Your task to perform on an android device: Search for "duracell triple a" on amazon.com, select the first entry, add it to the cart, then select checkout. Image 0: 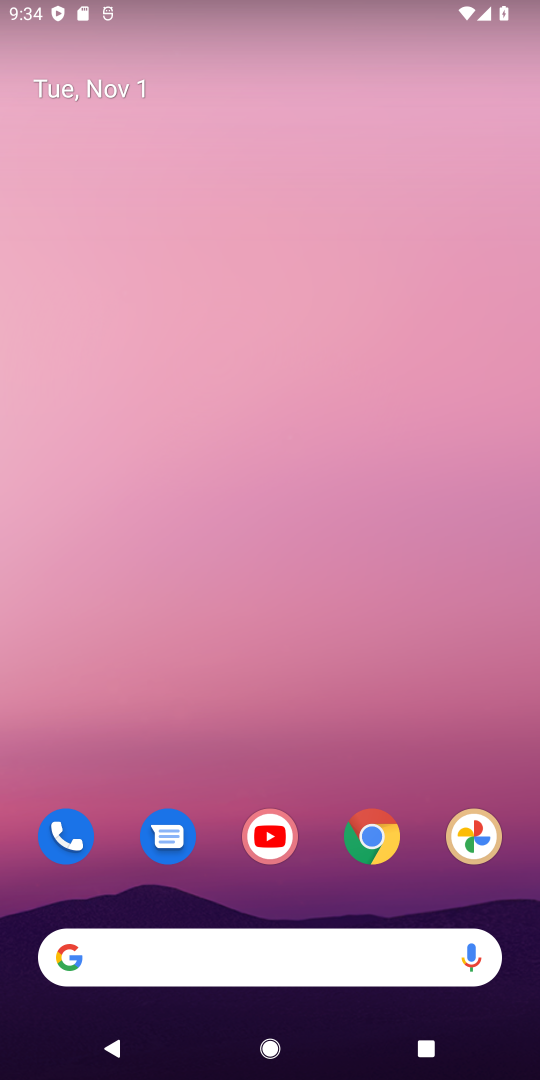
Step 0: click (362, 840)
Your task to perform on an android device: Search for "duracell triple a" on amazon.com, select the first entry, add it to the cart, then select checkout. Image 1: 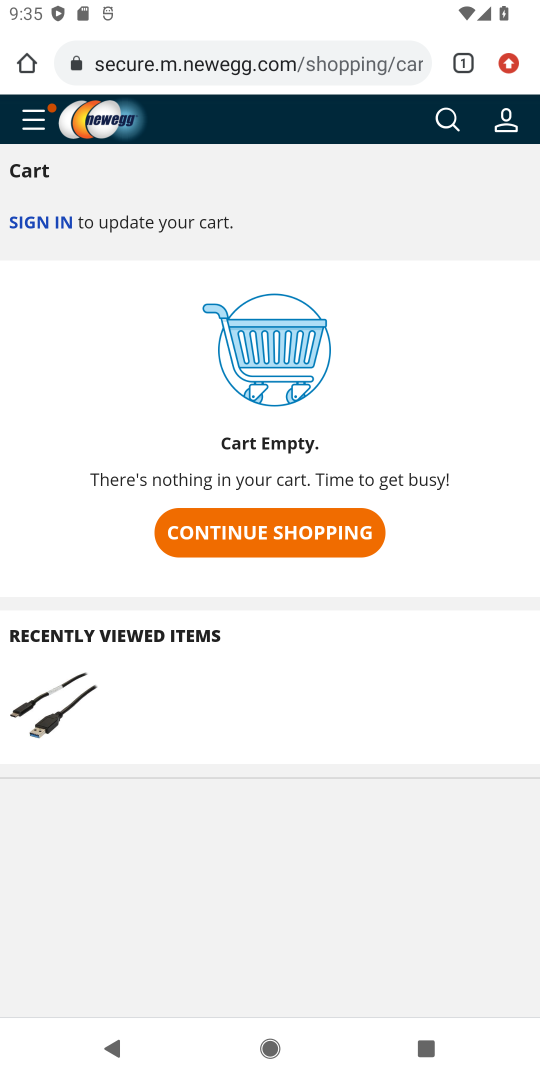
Step 1: click (239, 62)
Your task to perform on an android device: Search for "duracell triple a" on amazon.com, select the first entry, add it to the cart, then select checkout. Image 2: 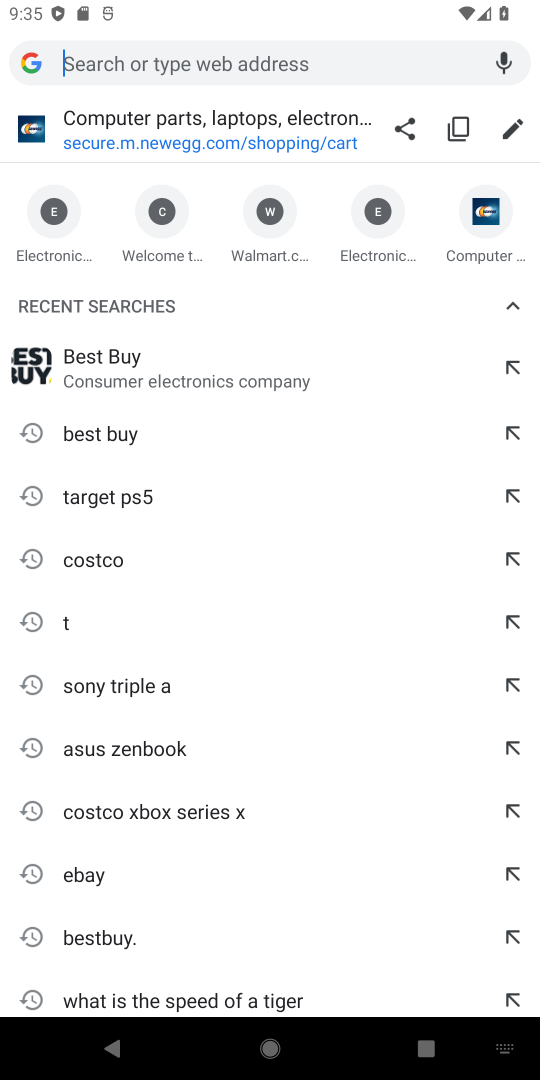
Step 2: type "amazon.com"
Your task to perform on an android device: Search for "duracell triple a" on amazon.com, select the first entry, add it to the cart, then select checkout. Image 3: 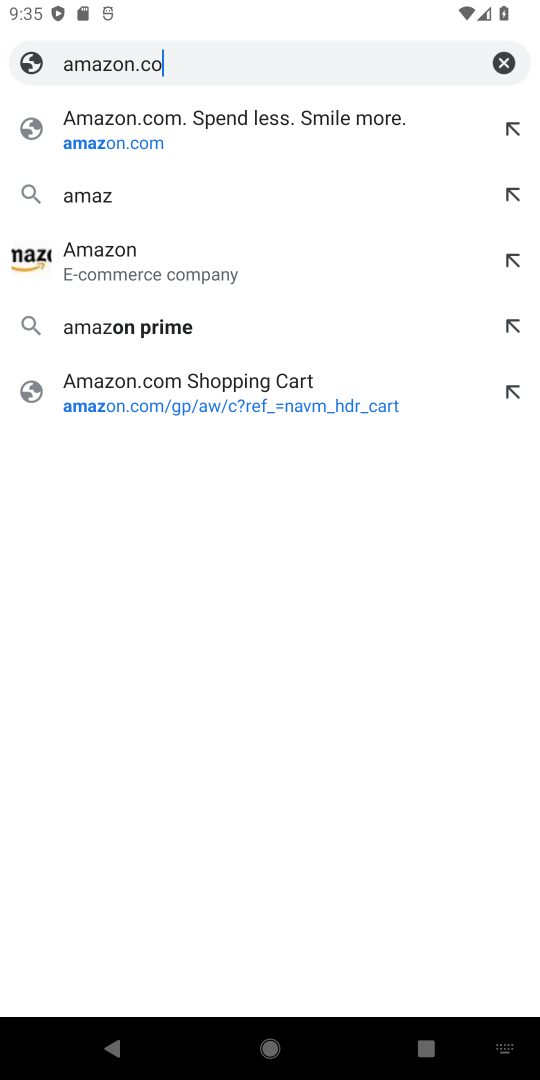
Step 3: type ""
Your task to perform on an android device: Search for "duracell triple a" on amazon.com, select the first entry, add it to the cart, then select checkout. Image 4: 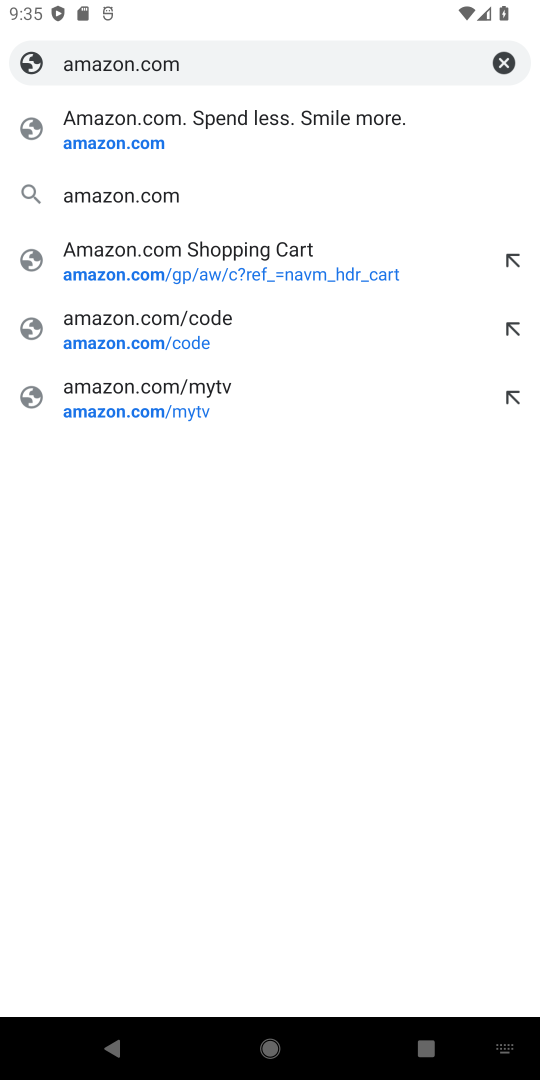
Step 4: click (289, 134)
Your task to perform on an android device: Search for "duracell triple a" on amazon.com, select the first entry, add it to the cart, then select checkout. Image 5: 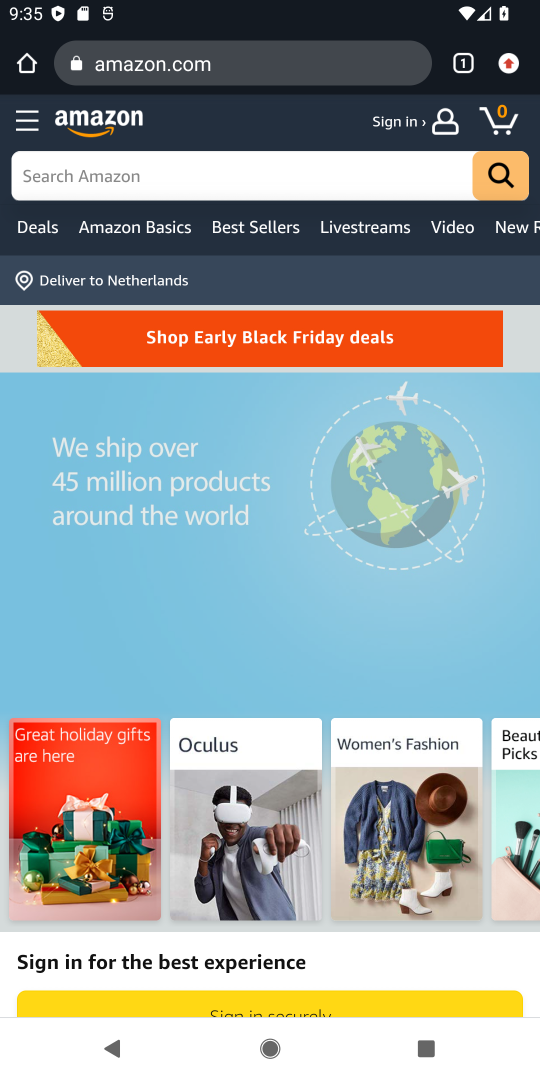
Step 5: click (202, 183)
Your task to perform on an android device: Search for "duracell triple a" on amazon.com, select the first entry, add it to the cart, then select checkout. Image 6: 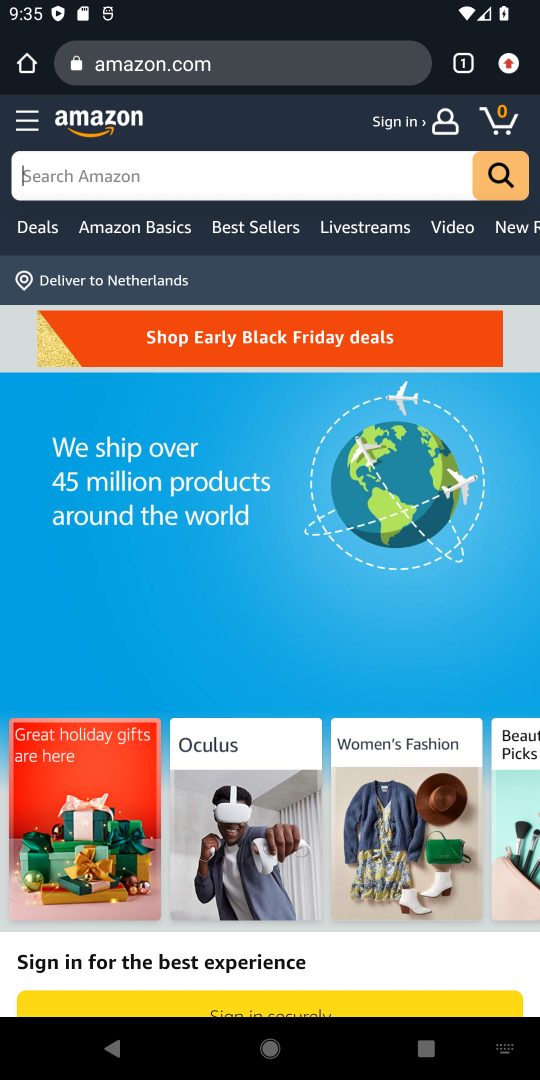
Step 6: type "duracell triple a"
Your task to perform on an android device: Search for "duracell triple a" on amazon.com, select the first entry, add it to the cart, then select checkout. Image 7: 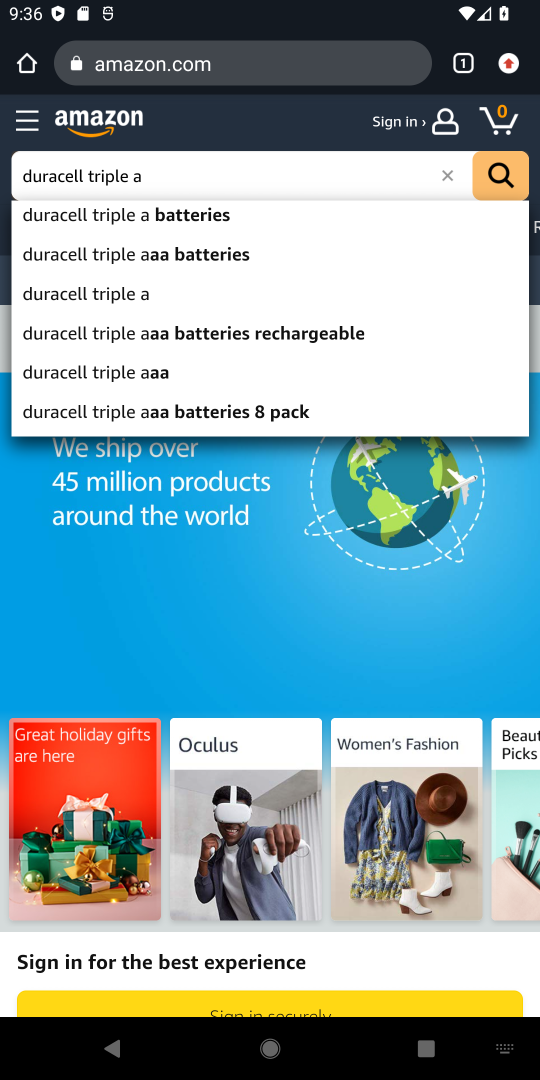
Step 7: click (77, 208)
Your task to perform on an android device: Search for "duracell triple a" on amazon.com, select the first entry, add it to the cart, then select checkout. Image 8: 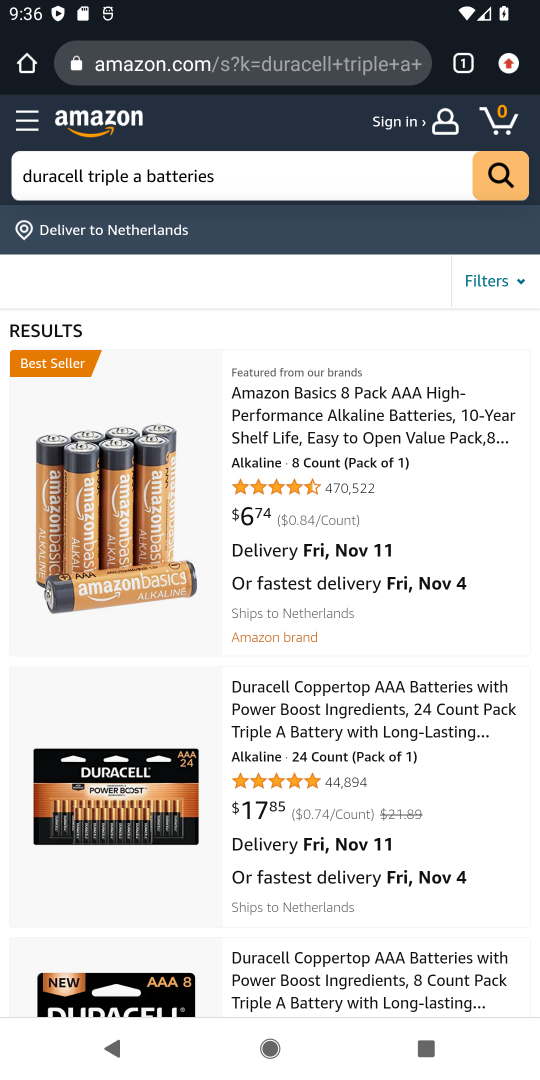
Step 8: click (284, 721)
Your task to perform on an android device: Search for "duracell triple a" on amazon.com, select the first entry, add it to the cart, then select checkout. Image 9: 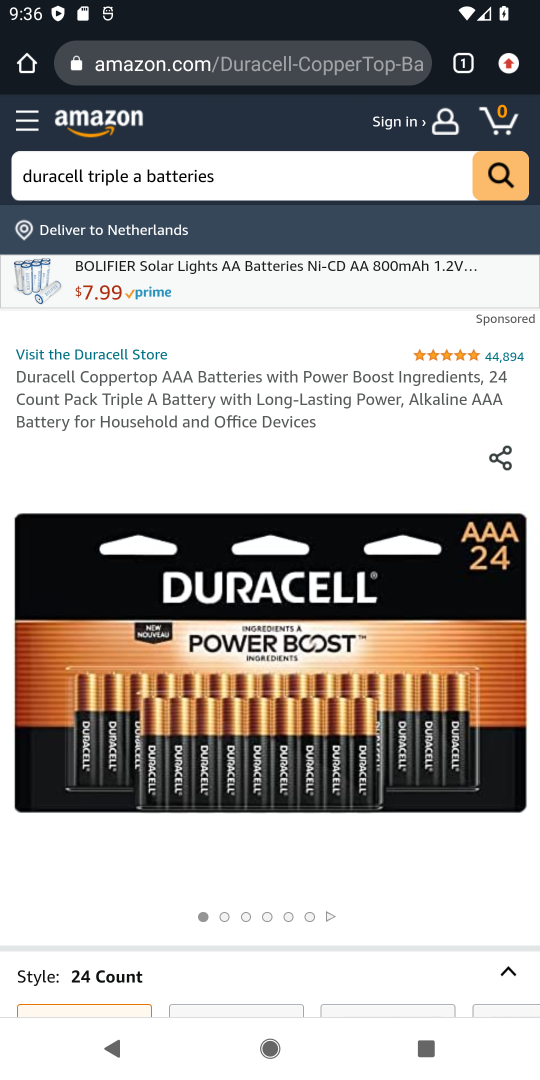
Step 9: drag from (278, 817) to (339, 319)
Your task to perform on an android device: Search for "duracell triple a" on amazon.com, select the first entry, add it to the cart, then select checkout. Image 10: 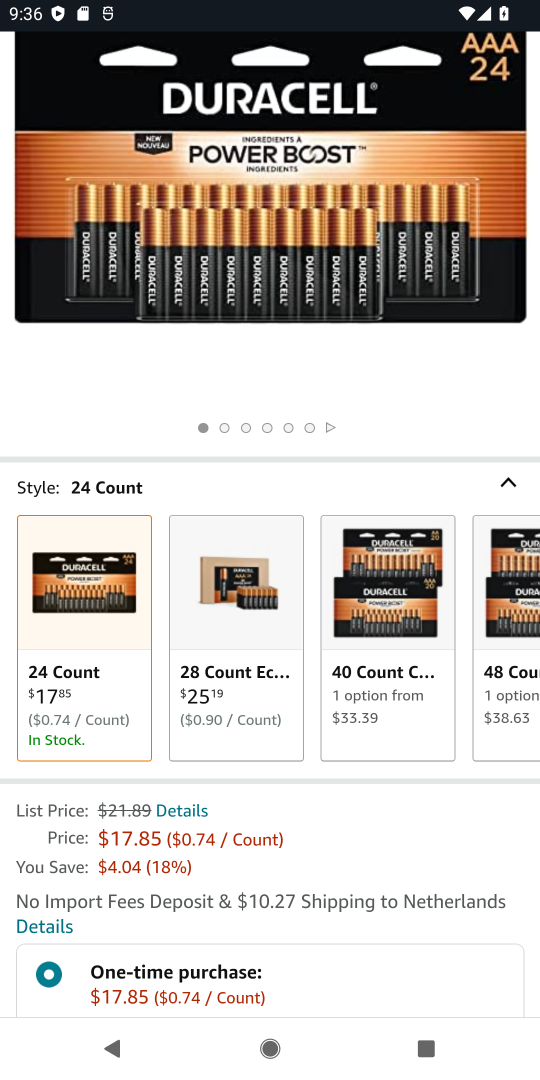
Step 10: drag from (315, 606) to (322, 300)
Your task to perform on an android device: Search for "duracell triple a" on amazon.com, select the first entry, add it to the cart, then select checkout. Image 11: 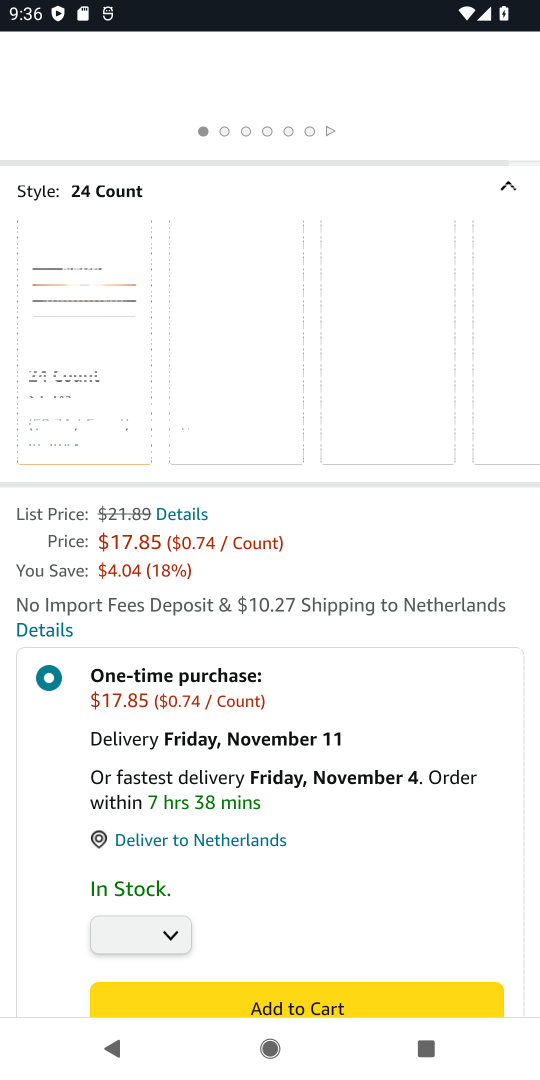
Step 11: drag from (239, 789) to (291, 539)
Your task to perform on an android device: Search for "duracell triple a" on amazon.com, select the first entry, add it to the cart, then select checkout. Image 12: 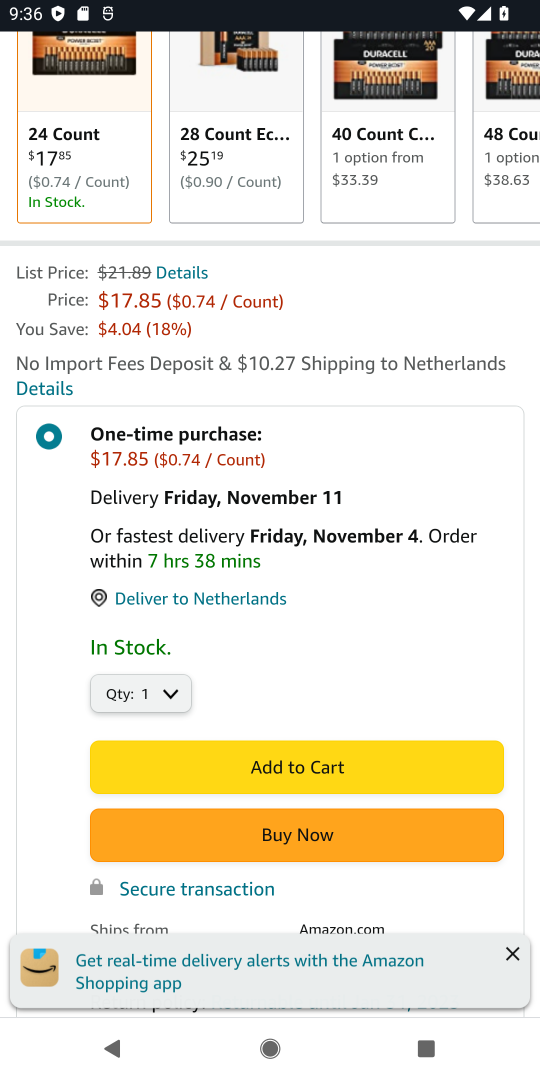
Step 12: click (261, 747)
Your task to perform on an android device: Search for "duracell triple a" on amazon.com, select the first entry, add it to the cart, then select checkout. Image 13: 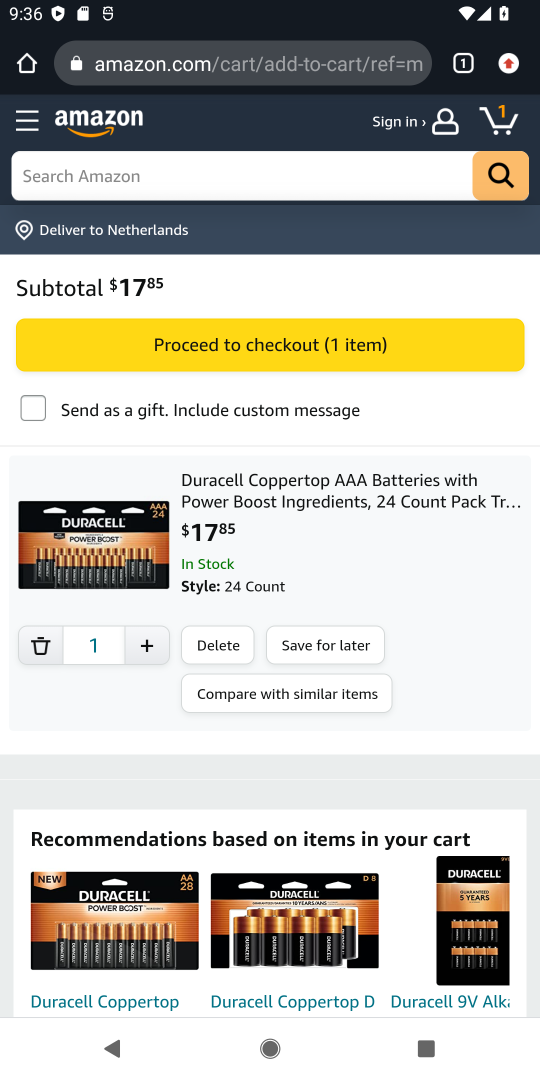
Step 13: click (517, 102)
Your task to perform on an android device: Search for "duracell triple a" on amazon.com, select the first entry, add it to the cart, then select checkout. Image 14: 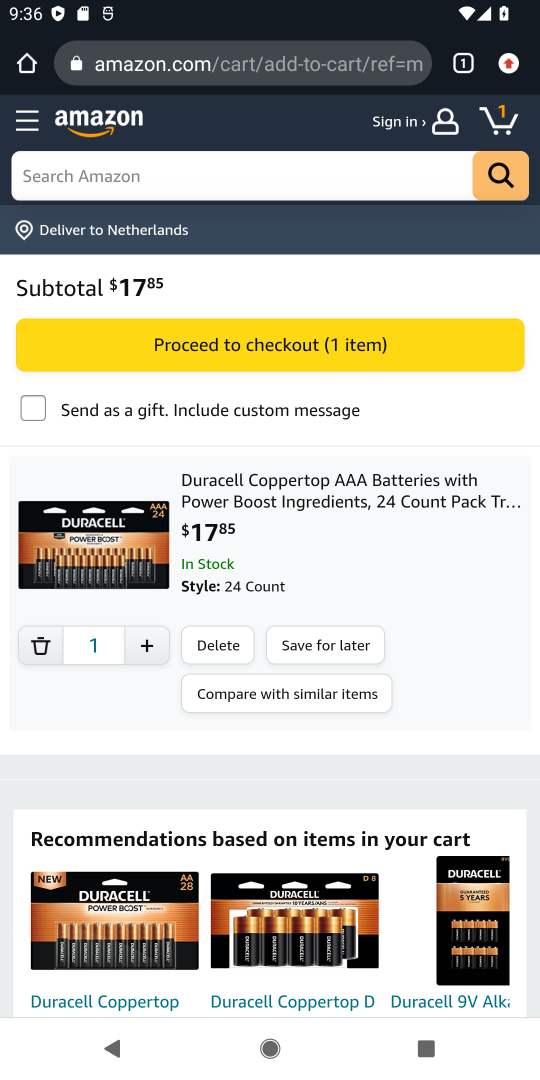
Step 14: click (506, 116)
Your task to perform on an android device: Search for "duracell triple a" on amazon.com, select the first entry, add it to the cart, then select checkout. Image 15: 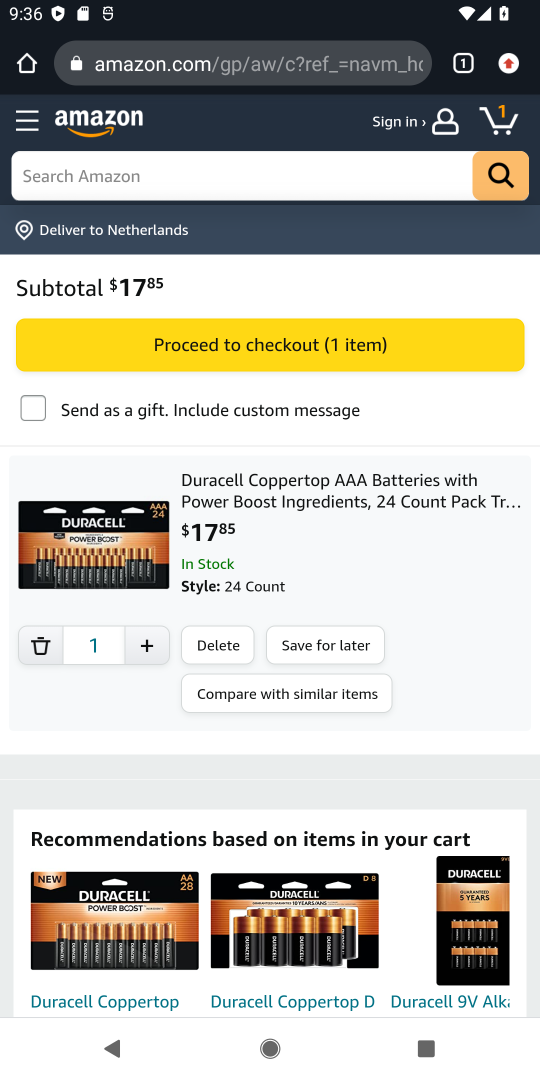
Step 15: click (405, 346)
Your task to perform on an android device: Search for "duracell triple a" on amazon.com, select the first entry, add it to the cart, then select checkout. Image 16: 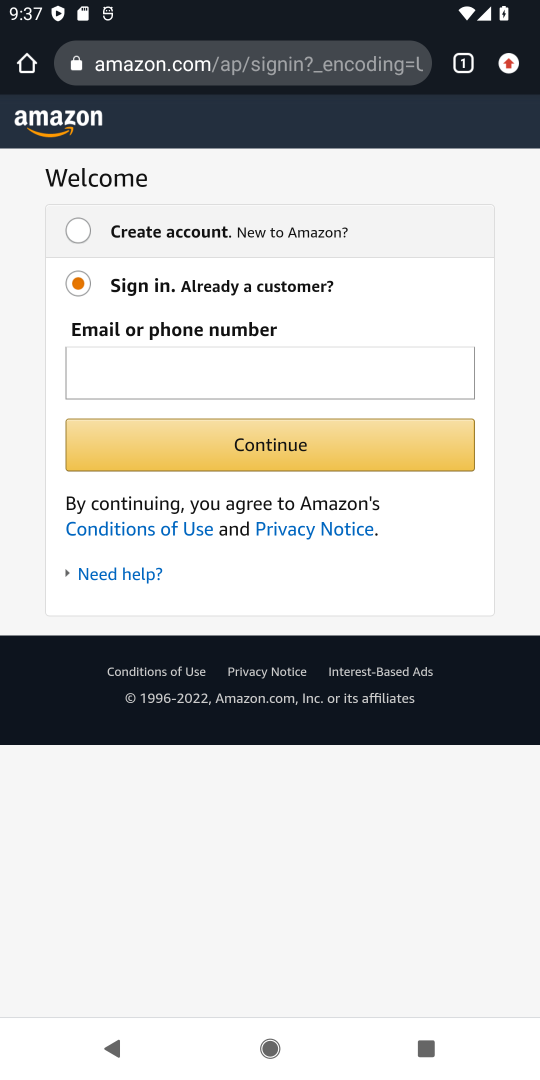
Step 16: task complete